Your task to perform on an android device: search for starred emails in the gmail app Image 0: 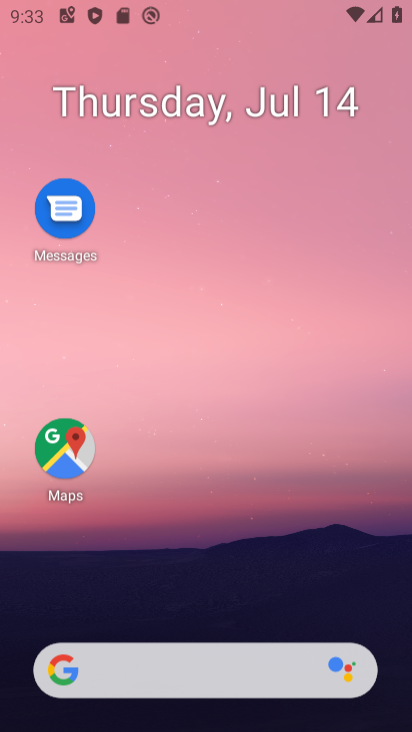
Step 0: press home button
Your task to perform on an android device: search for starred emails in the gmail app Image 1: 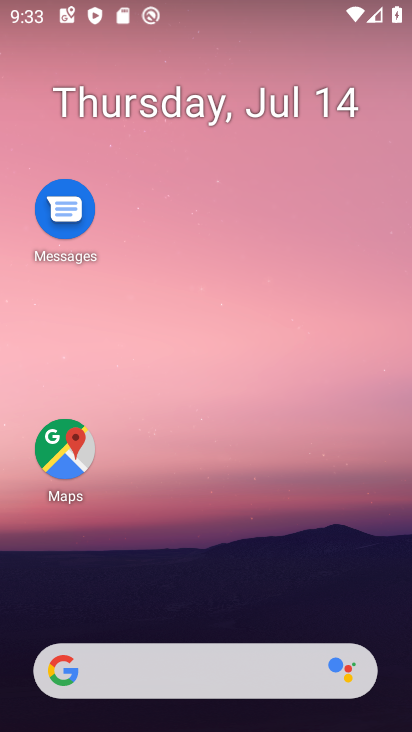
Step 1: drag from (194, 618) to (169, 7)
Your task to perform on an android device: search for starred emails in the gmail app Image 2: 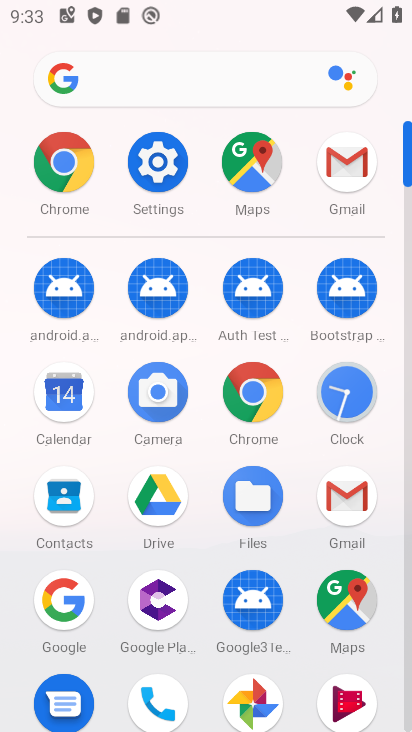
Step 2: click (336, 491)
Your task to perform on an android device: search for starred emails in the gmail app Image 3: 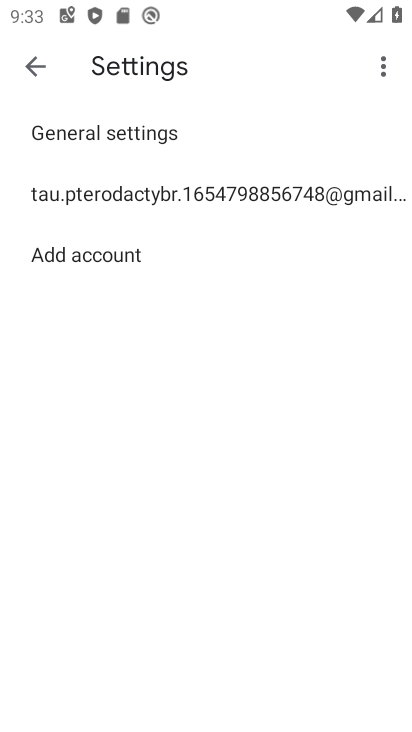
Step 3: click (38, 69)
Your task to perform on an android device: search for starred emails in the gmail app Image 4: 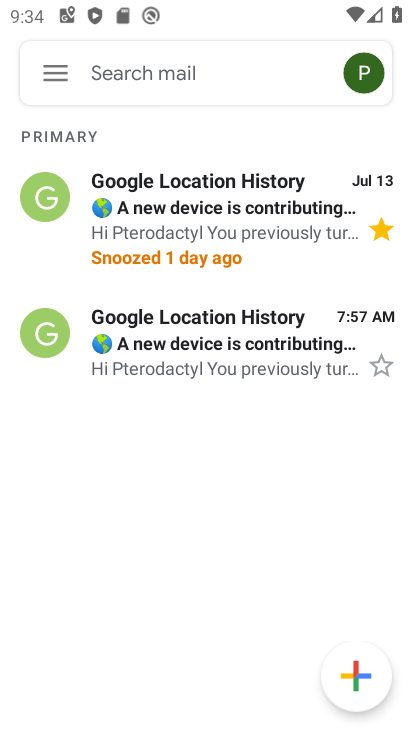
Step 4: click (38, 69)
Your task to perform on an android device: search for starred emails in the gmail app Image 5: 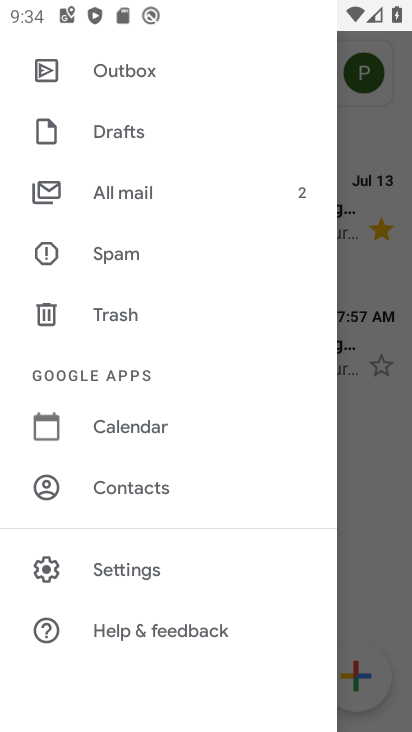
Step 5: drag from (95, 205) to (123, 668)
Your task to perform on an android device: search for starred emails in the gmail app Image 6: 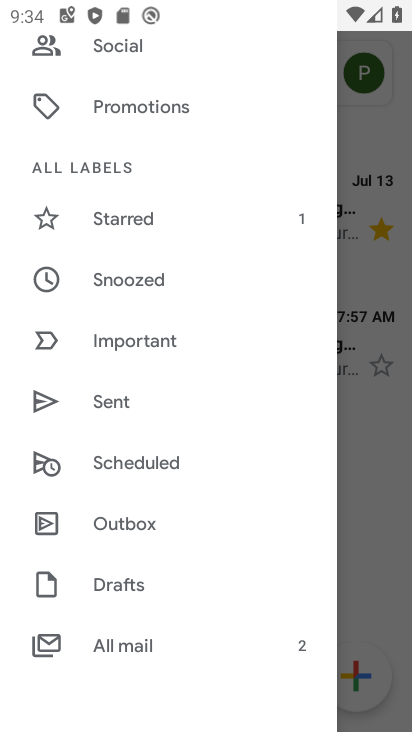
Step 6: click (121, 229)
Your task to perform on an android device: search for starred emails in the gmail app Image 7: 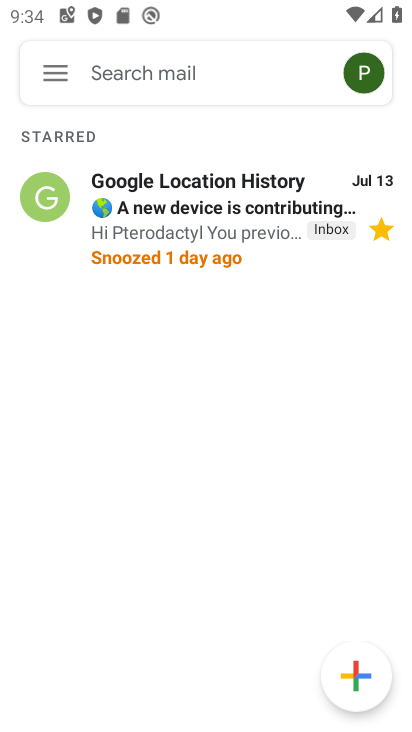
Step 7: drag from (121, 229) to (131, 667)
Your task to perform on an android device: search for starred emails in the gmail app Image 8: 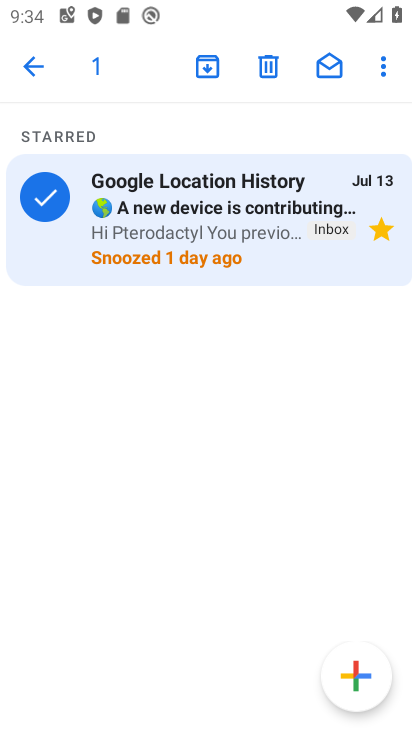
Step 8: click (31, 72)
Your task to perform on an android device: search for starred emails in the gmail app Image 9: 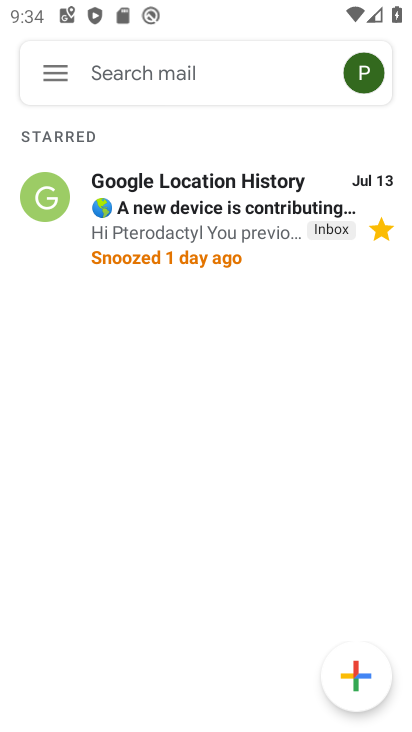
Step 9: task complete